Your task to perform on an android device: see sites visited before in the chrome app Image 0: 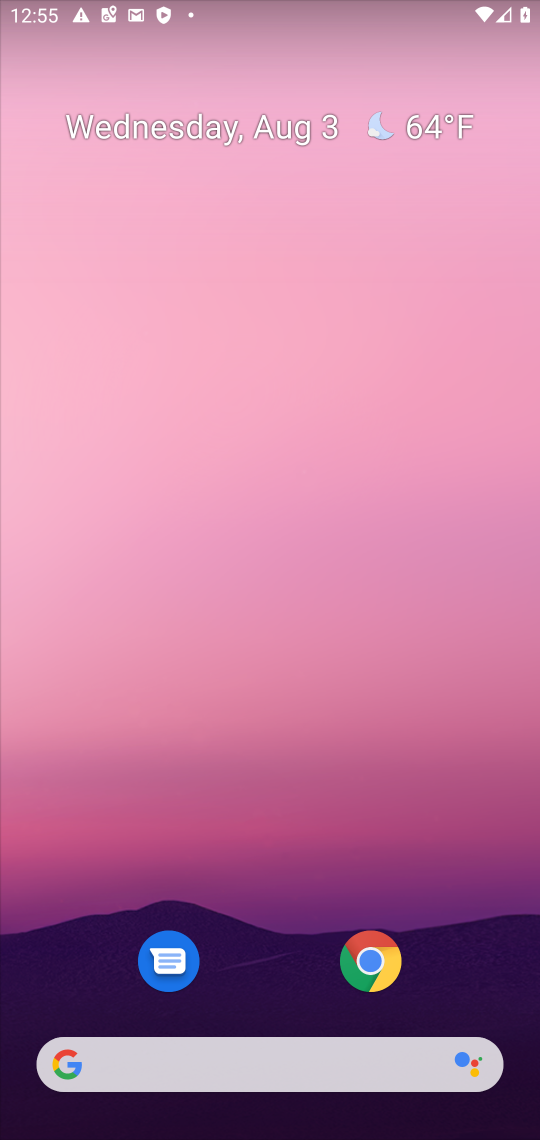
Step 0: click (377, 963)
Your task to perform on an android device: see sites visited before in the chrome app Image 1: 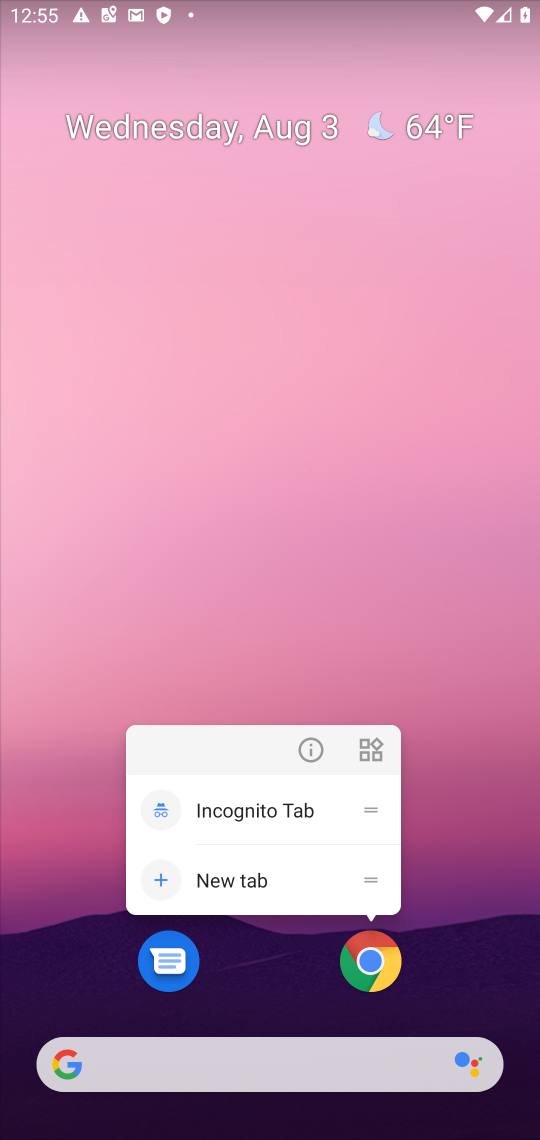
Step 1: click (359, 967)
Your task to perform on an android device: see sites visited before in the chrome app Image 2: 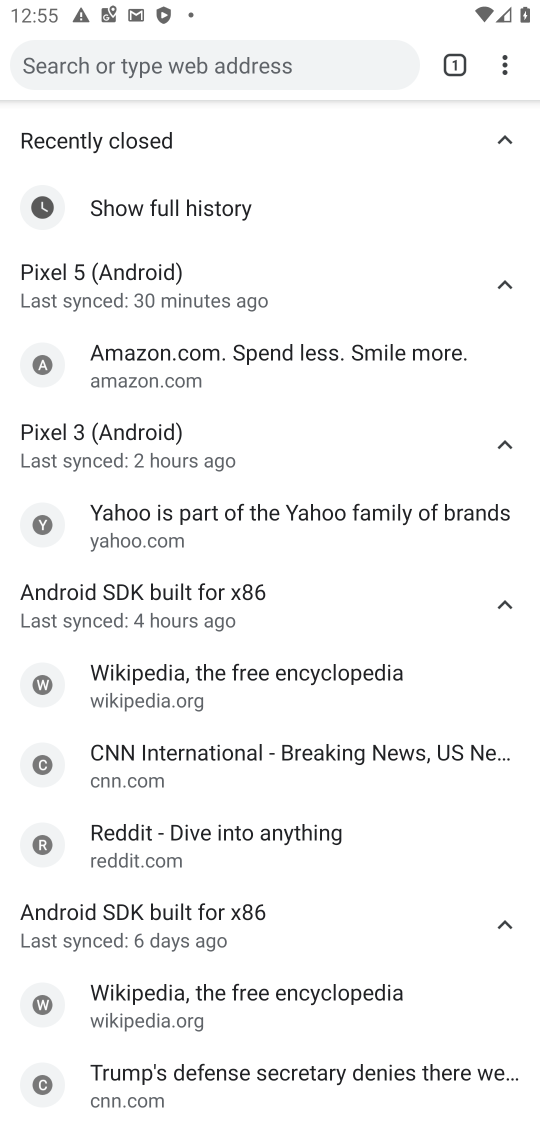
Step 2: task complete